Your task to perform on an android device: move an email to a new category in the gmail app Image 0: 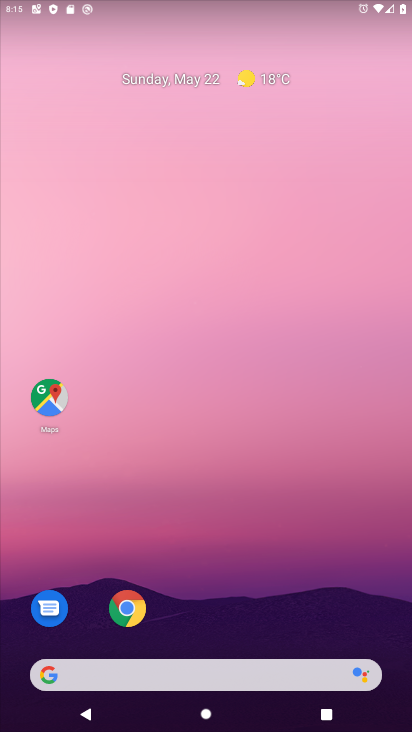
Step 0: drag from (222, 536) to (209, 0)
Your task to perform on an android device: move an email to a new category in the gmail app Image 1: 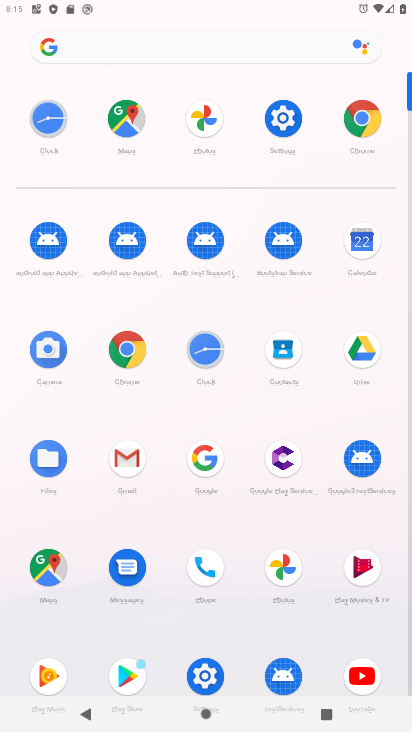
Step 1: click (130, 460)
Your task to perform on an android device: move an email to a new category in the gmail app Image 2: 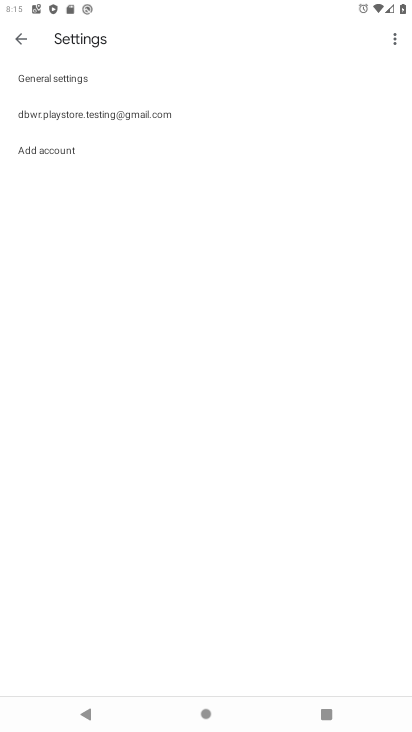
Step 2: click (22, 39)
Your task to perform on an android device: move an email to a new category in the gmail app Image 3: 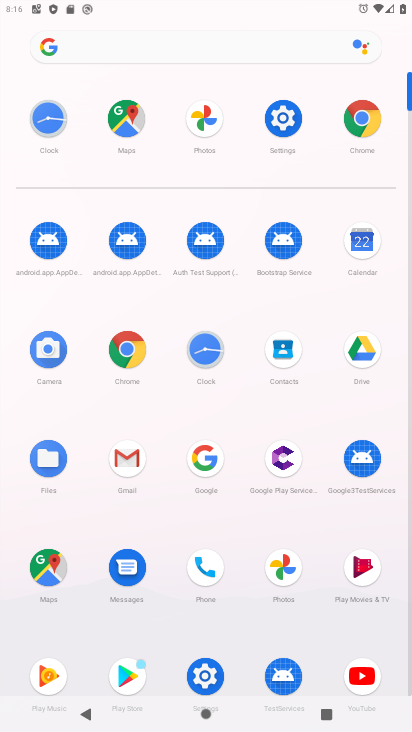
Step 3: click (127, 458)
Your task to perform on an android device: move an email to a new category in the gmail app Image 4: 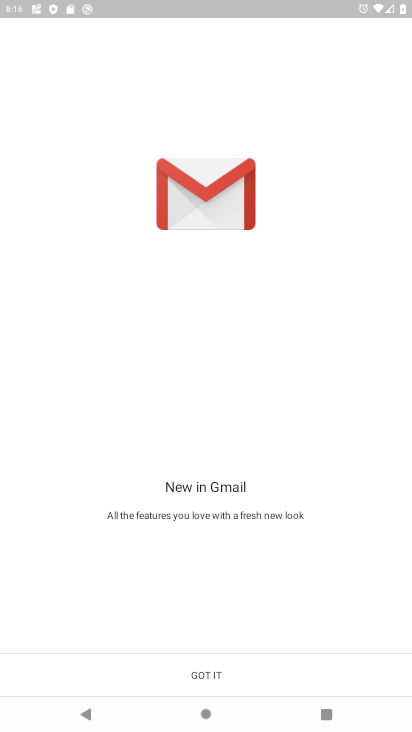
Step 4: click (213, 668)
Your task to perform on an android device: move an email to a new category in the gmail app Image 5: 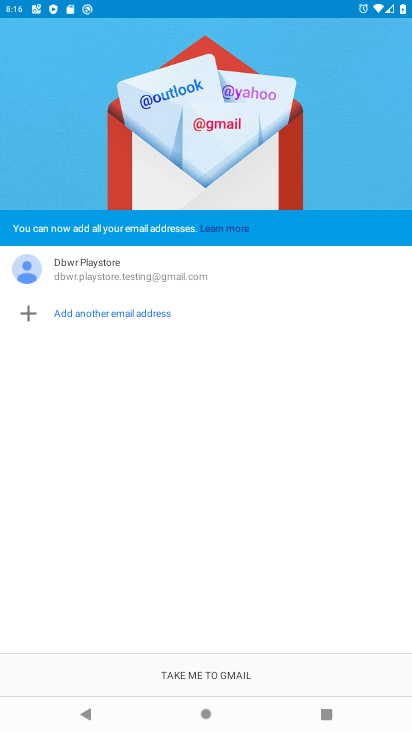
Step 5: click (213, 668)
Your task to perform on an android device: move an email to a new category in the gmail app Image 6: 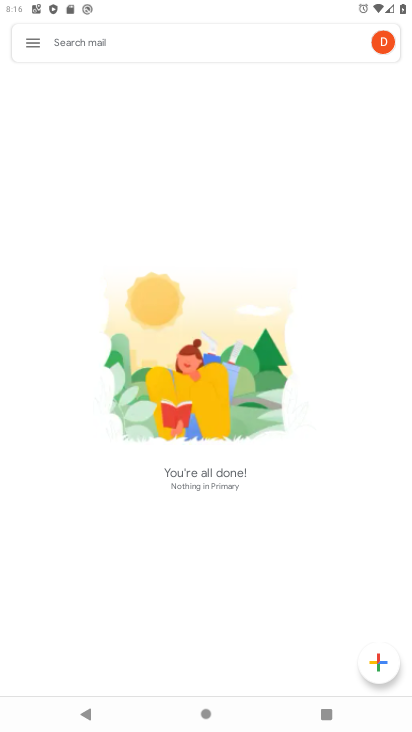
Step 6: task complete